Your task to perform on an android device: turn on bluetooth scan Image 0: 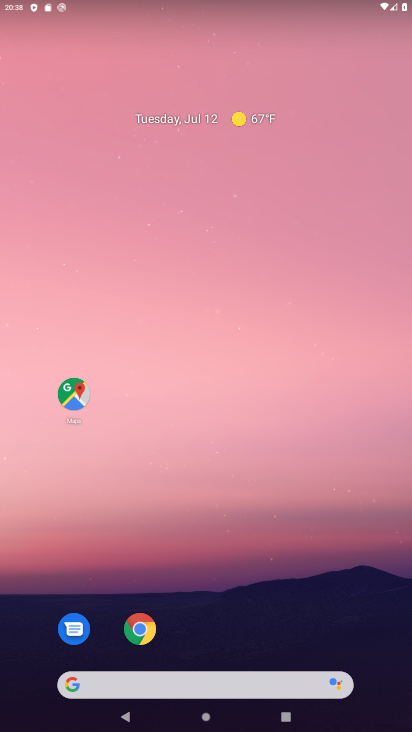
Step 0: drag from (254, 501) to (408, 247)
Your task to perform on an android device: turn on bluetooth scan Image 1: 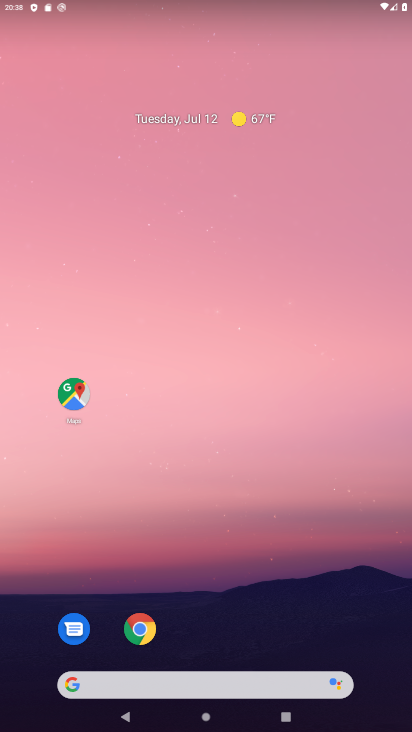
Step 1: drag from (273, 641) to (349, 17)
Your task to perform on an android device: turn on bluetooth scan Image 2: 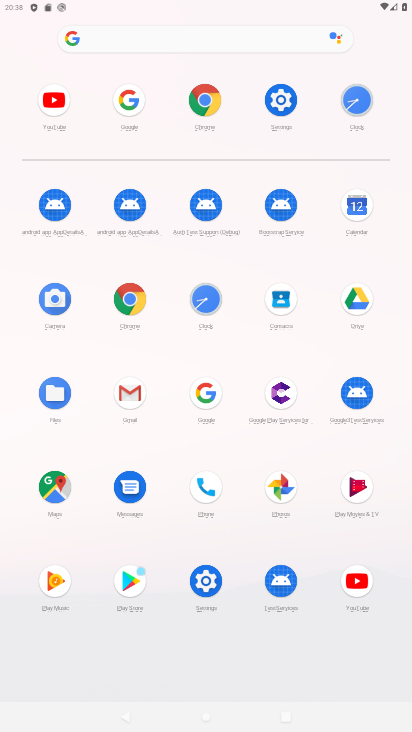
Step 2: click (271, 123)
Your task to perform on an android device: turn on bluetooth scan Image 3: 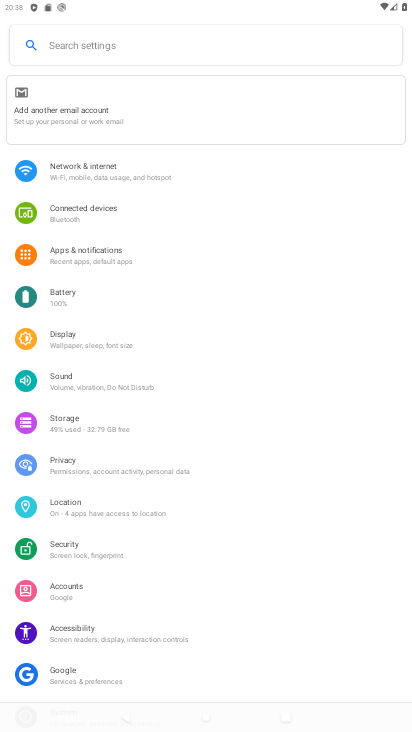
Step 3: click (98, 501)
Your task to perform on an android device: turn on bluetooth scan Image 4: 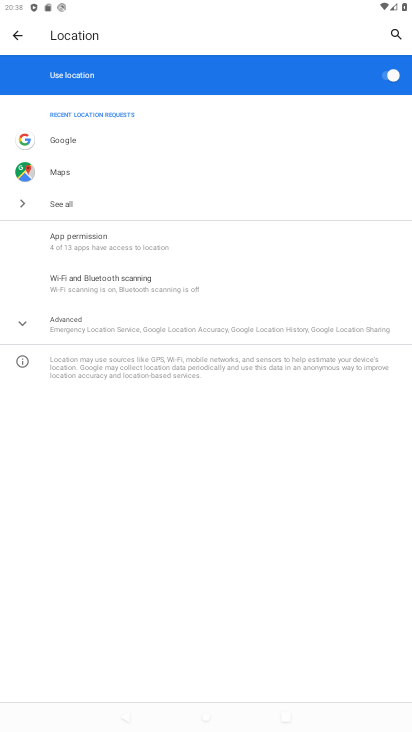
Step 4: click (161, 287)
Your task to perform on an android device: turn on bluetooth scan Image 5: 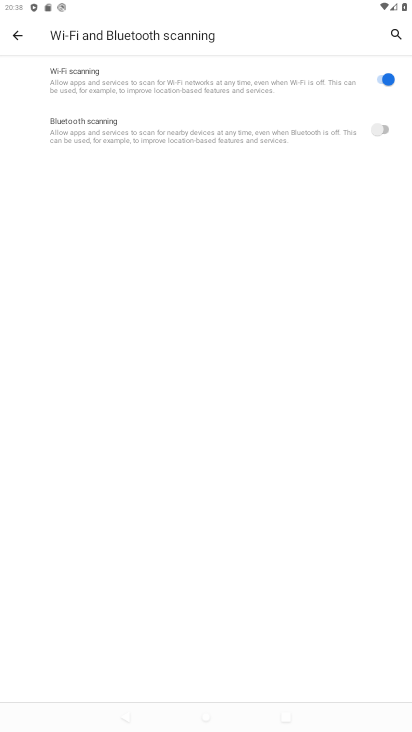
Step 5: click (371, 126)
Your task to perform on an android device: turn on bluetooth scan Image 6: 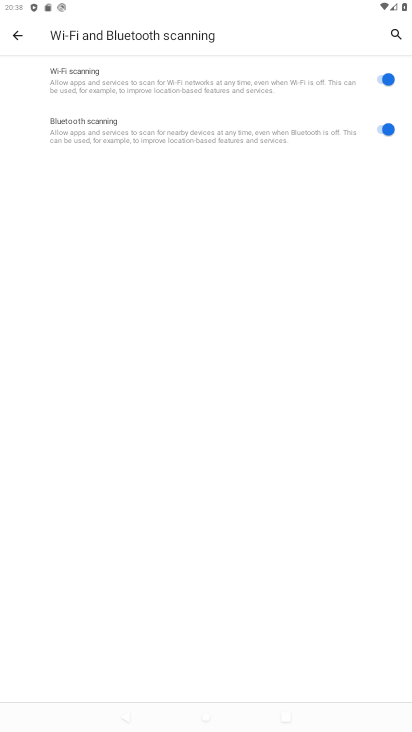
Step 6: task complete